Your task to perform on an android device: manage bookmarks in the chrome app Image 0: 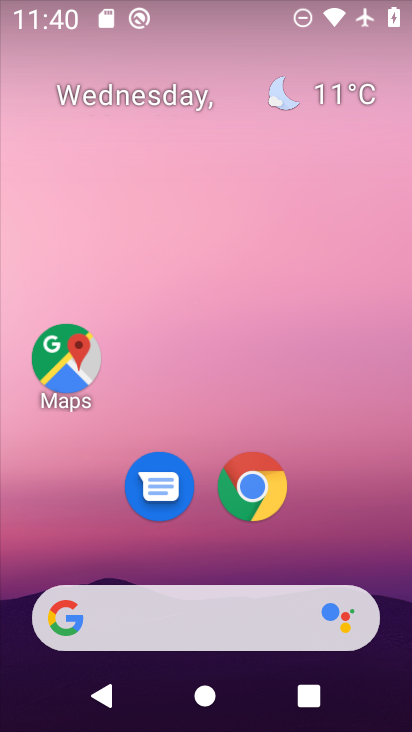
Step 0: drag from (333, 523) to (224, 23)
Your task to perform on an android device: manage bookmarks in the chrome app Image 1: 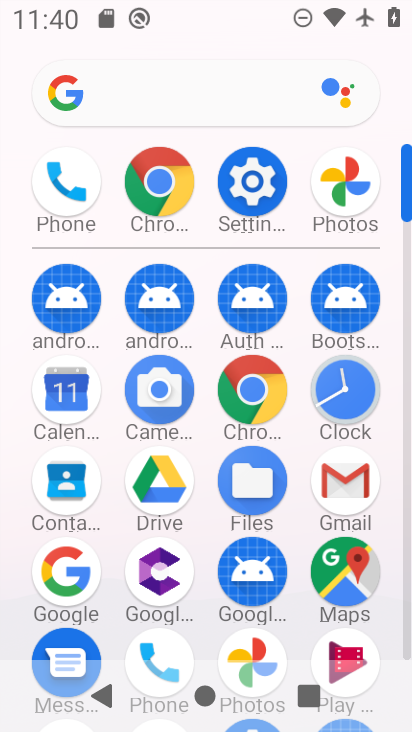
Step 1: drag from (14, 581) to (13, 243)
Your task to perform on an android device: manage bookmarks in the chrome app Image 2: 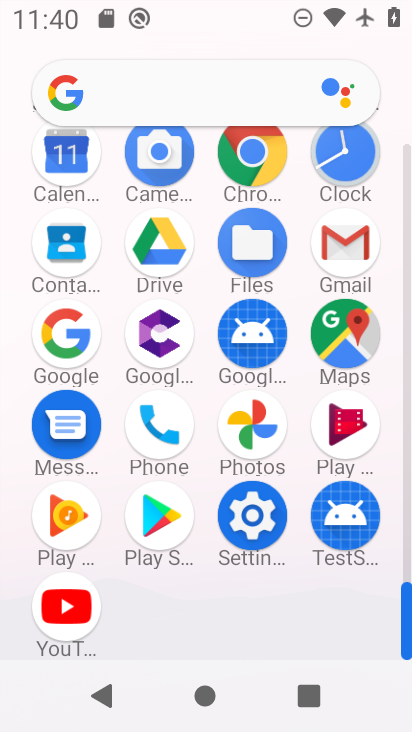
Step 2: click (253, 146)
Your task to perform on an android device: manage bookmarks in the chrome app Image 3: 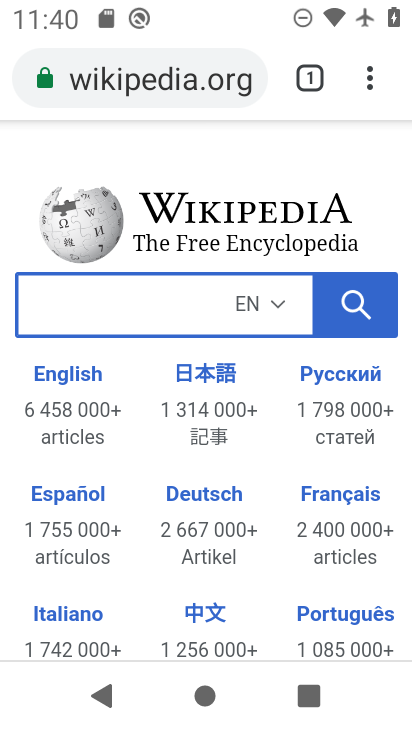
Step 3: drag from (367, 75) to (187, 296)
Your task to perform on an android device: manage bookmarks in the chrome app Image 4: 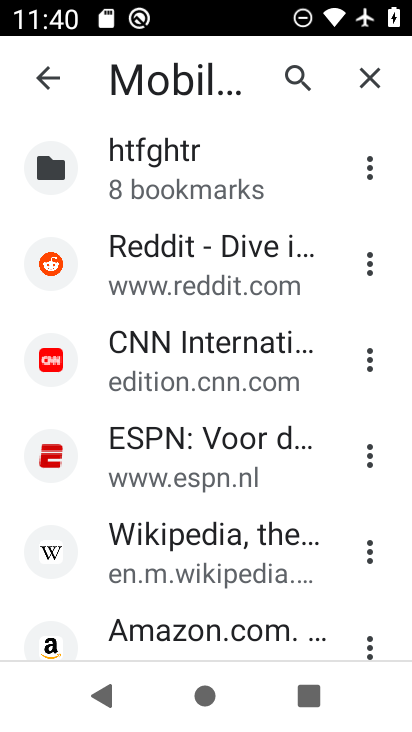
Step 4: click (368, 168)
Your task to perform on an android device: manage bookmarks in the chrome app Image 5: 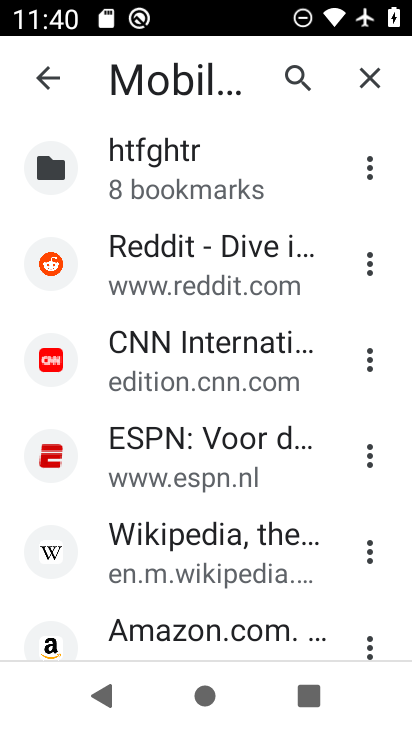
Step 5: click (369, 167)
Your task to perform on an android device: manage bookmarks in the chrome app Image 6: 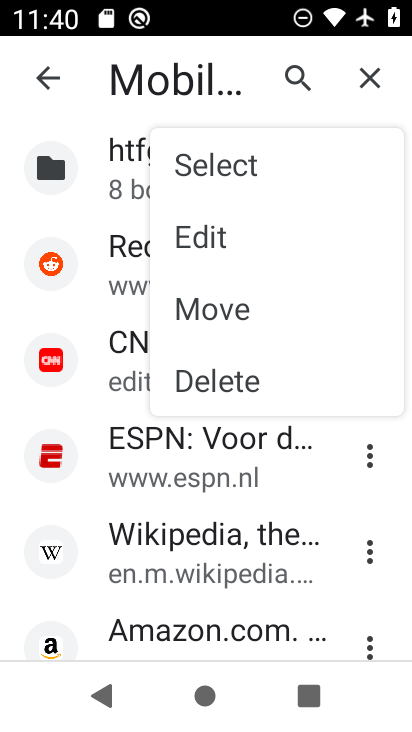
Step 6: click (265, 367)
Your task to perform on an android device: manage bookmarks in the chrome app Image 7: 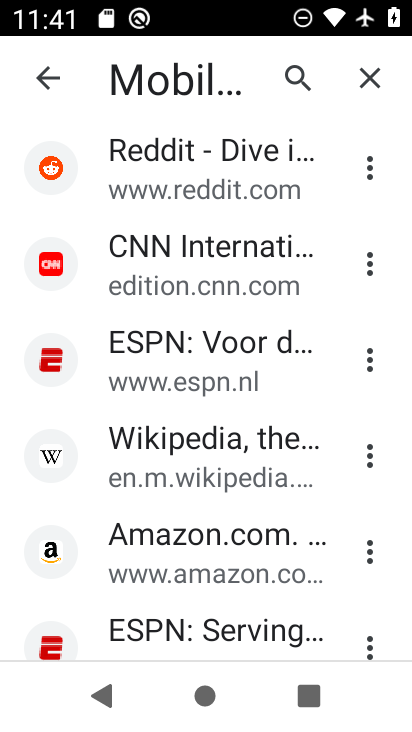
Step 7: task complete